Your task to perform on an android device: Open eBay Image 0: 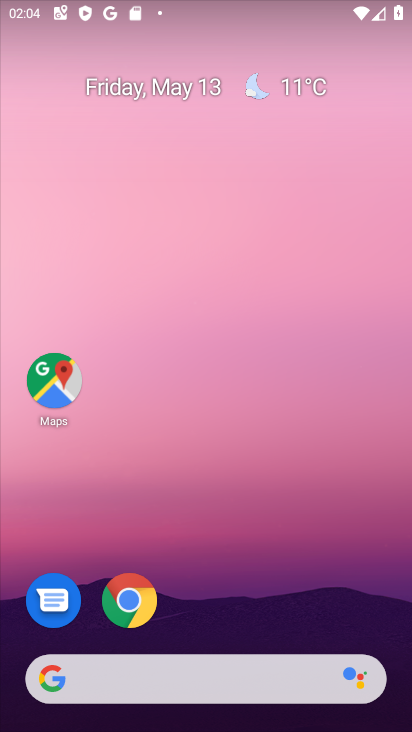
Step 0: drag from (246, 575) to (291, 194)
Your task to perform on an android device: Open eBay Image 1: 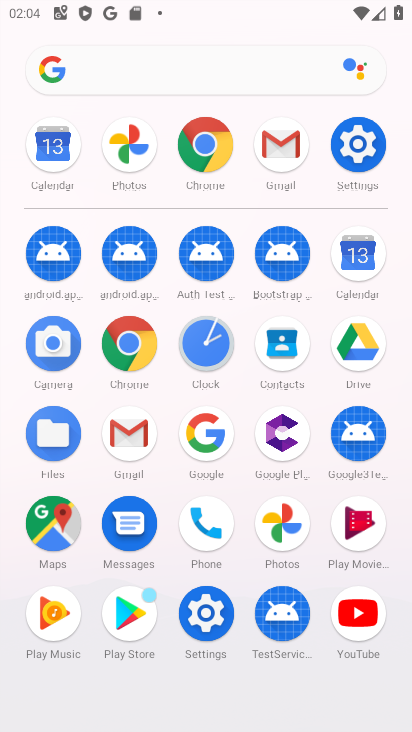
Step 1: click (147, 69)
Your task to perform on an android device: Open eBay Image 2: 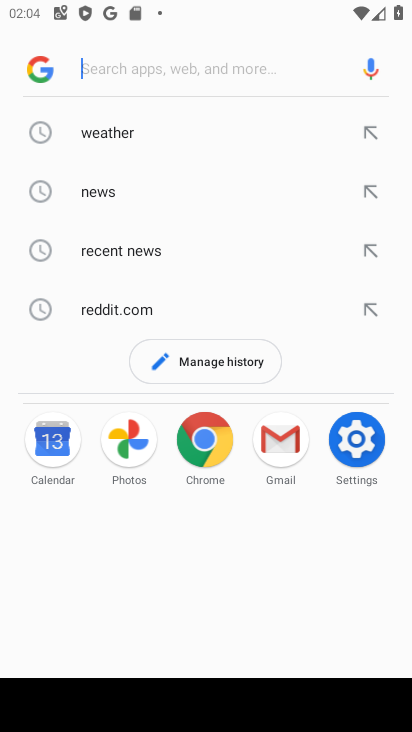
Step 2: type "ebay"
Your task to perform on an android device: Open eBay Image 3: 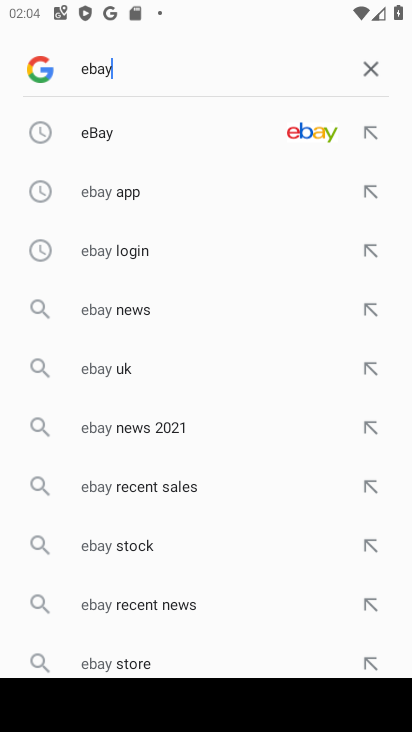
Step 3: click (243, 126)
Your task to perform on an android device: Open eBay Image 4: 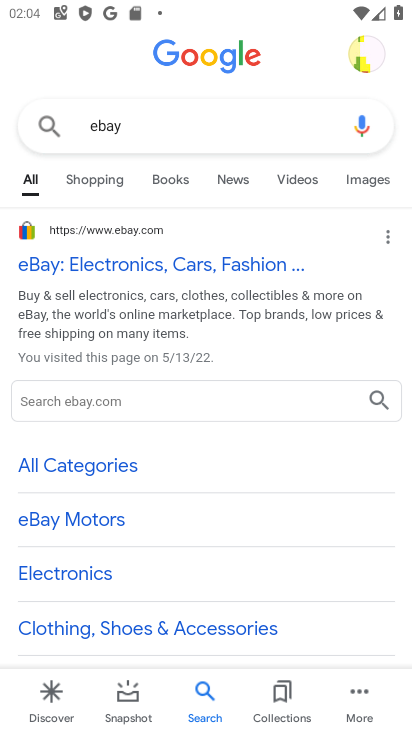
Step 4: drag from (147, 599) to (196, 183)
Your task to perform on an android device: Open eBay Image 5: 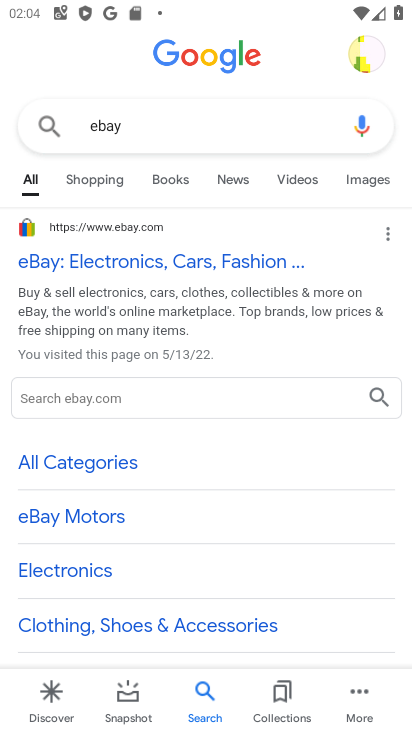
Step 5: drag from (199, 169) to (229, 615)
Your task to perform on an android device: Open eBay Image 6: 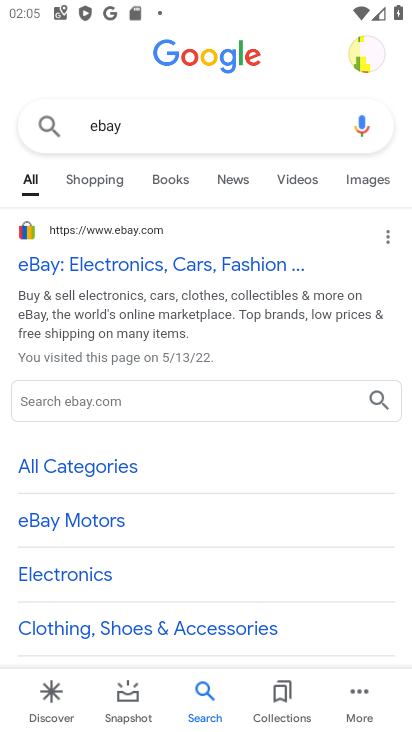
Step 6: click (129, 262)
Your task to perform on an android device: Open eBay Image 7: 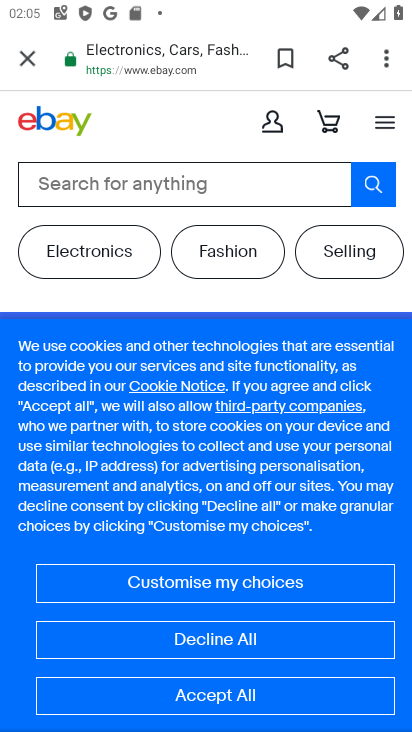
Step 7: task complete